Your task to perform on an android device: Open Google Chrome and click the shortcut for Amazon.com Image 0: 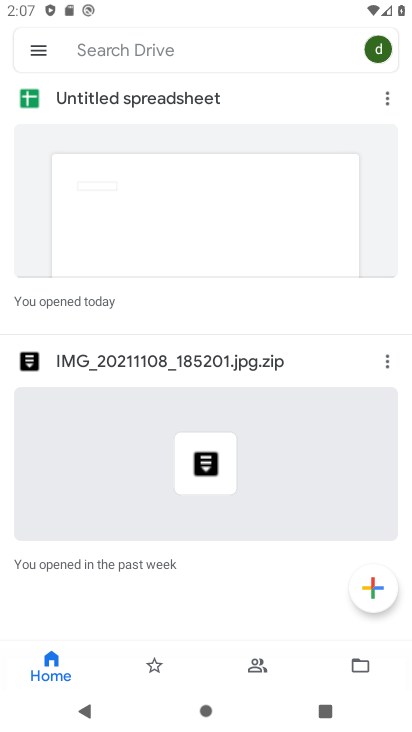
Step 0: press home button
Your task to perform on an android device: Open Google Chrome and click the shortcut for Amazon.com Image 1: 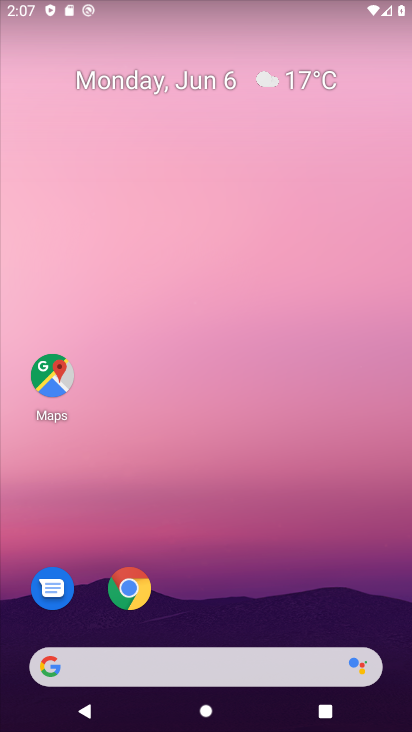
Step 1: click (125, 596)
Your task to perform on an android device: Open Google Chrome and click the shortcut for Amazon.com Image 2: 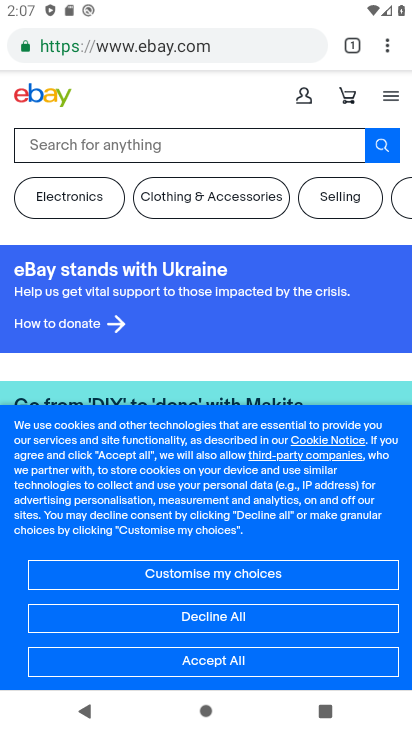
Step 2: click (344, 51)
Your task to perform on an android device: Open Google Chrome and click the shortcut for Amazon.com Image 3: 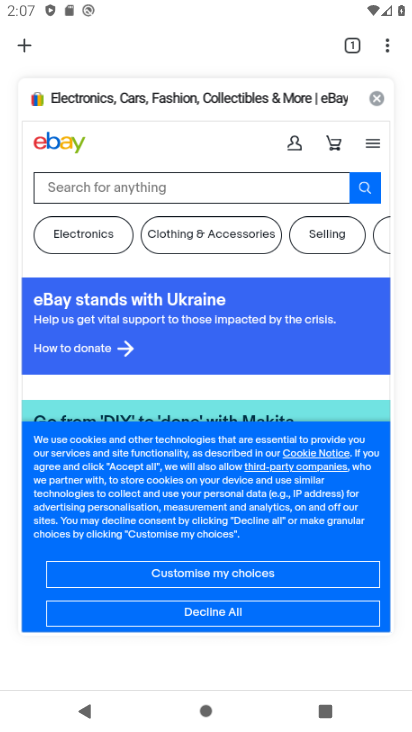
Step 3: click (23, 50)
Your task to perform on an android device: Open Google Chrome and click the shortcut for Amazon.com Image 4: 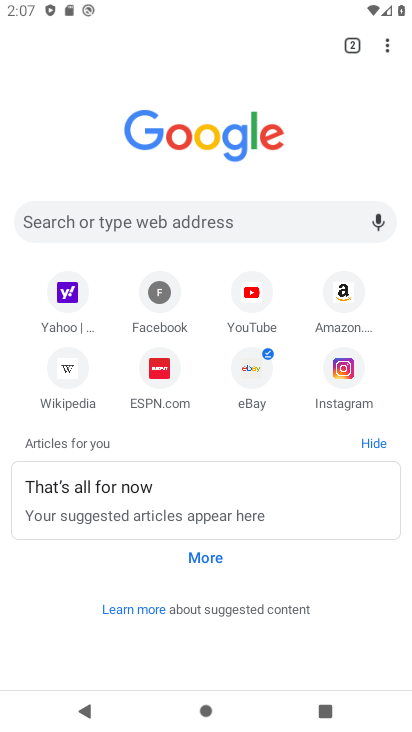
Step 4: click (326, 291)
Your task to perform on an android device: Open Google Chrome and click the shortcut for Amazon.com Image 5: 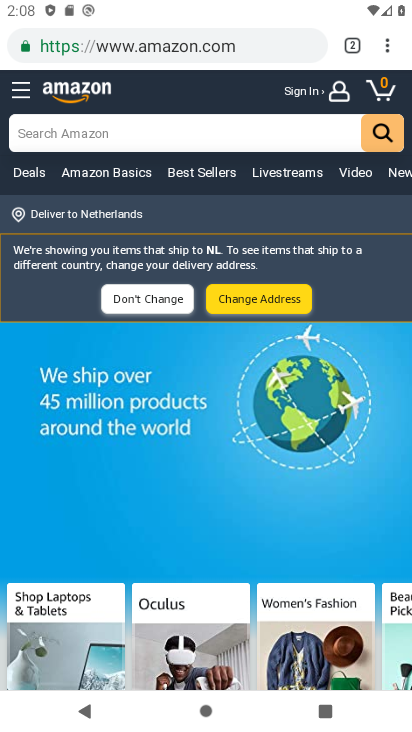
Step 5: task complete